Your task to perform on an android device: Open Android settings Image 0: 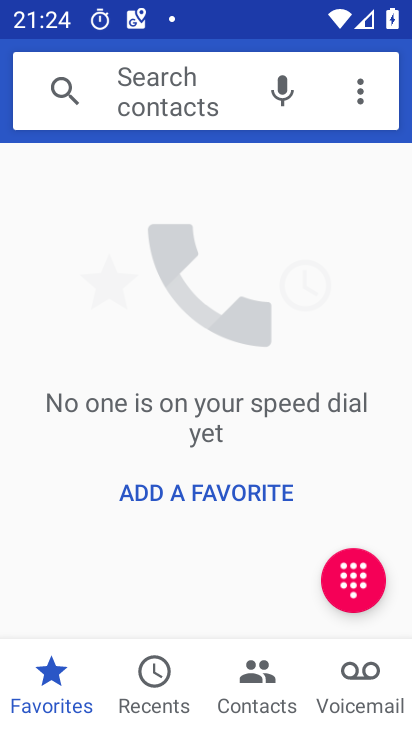
Step 0: press home button
Your task to perform on an android device: Open Android settings Image 1: 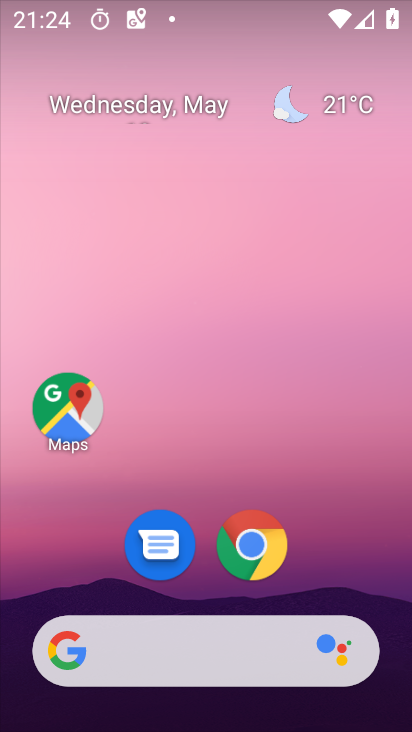
Step 1: drag from (196, 585) to (303, 13)
Your task to perform on an android device: Open Android settings Image 2: 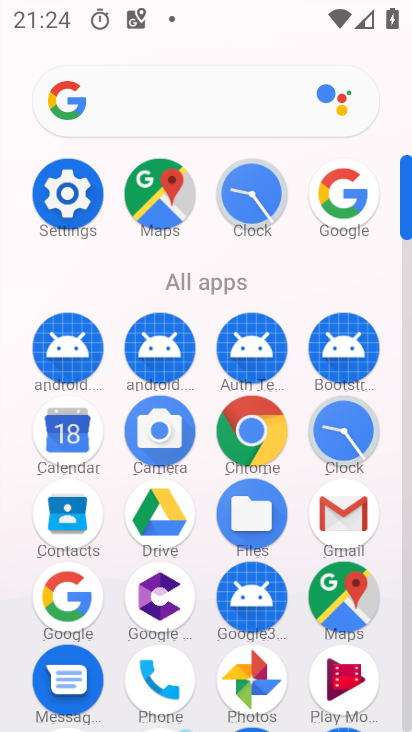
Step 2: click (68, 197)
Your task to perform on an android device: Open Android settings Image 3: 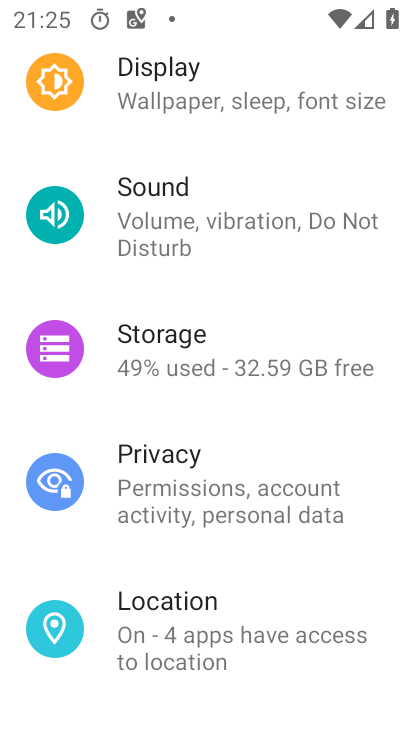
Step 3: drag from (240, 590) to (292, 373)
Your task to perform on an android device: Open Android settings Image 4: 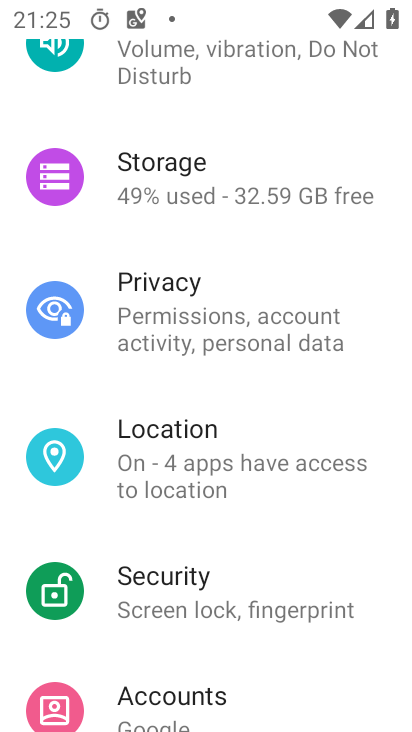
Step 4: drag from (227, 644) to (196, 447)
Your task to perform on an android device: Open Android settings Image 5: 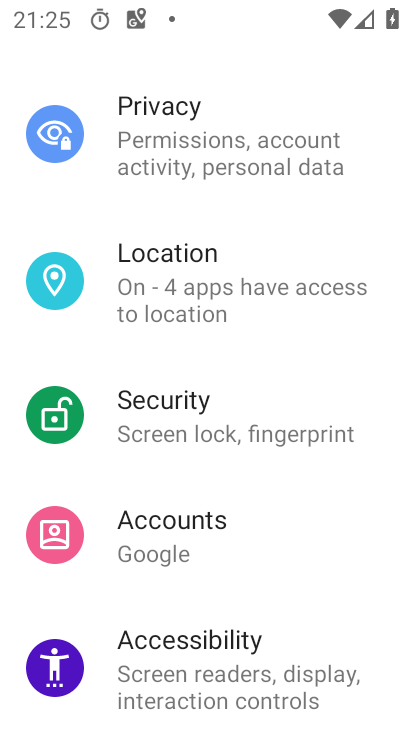
Step 5: drag from (200, 661) to (203, 459)
Your task to perform on an android device: Open Android settings Image 6: 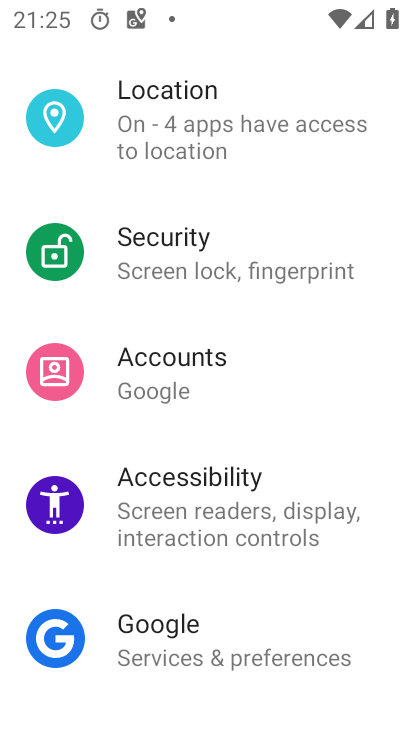
Step 6: drag from (202, 709) to (200, 552)
Your task to perform on an android device: Open Android settings Image 7: 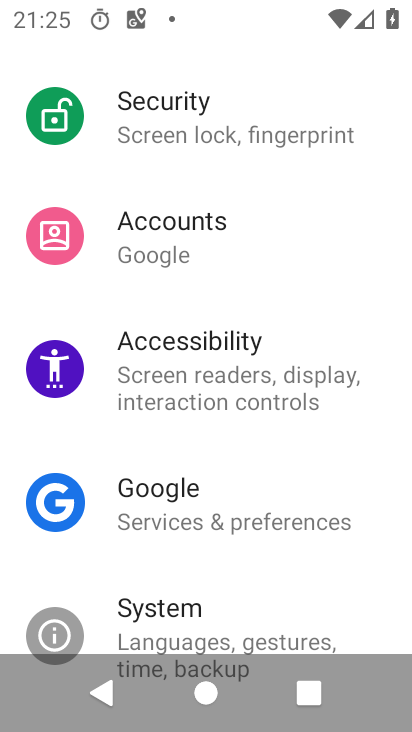
Step 7: click (201, 628)
Your task to perform on an android device: Open Android settings Image 8: 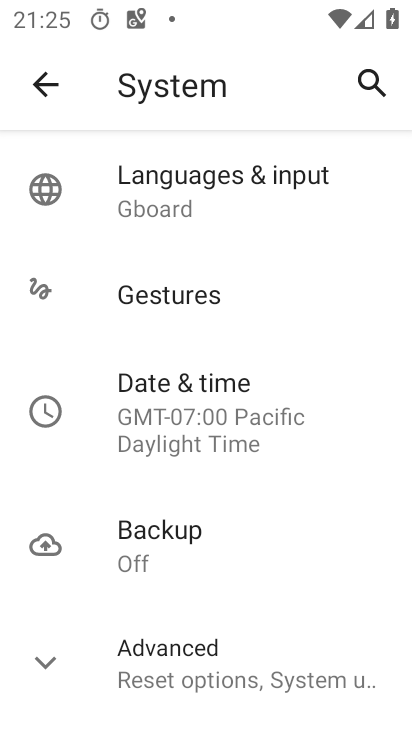
Step 8: task complete